Your task to perform on an android device: move a message to another label in the gmail app Image 0: 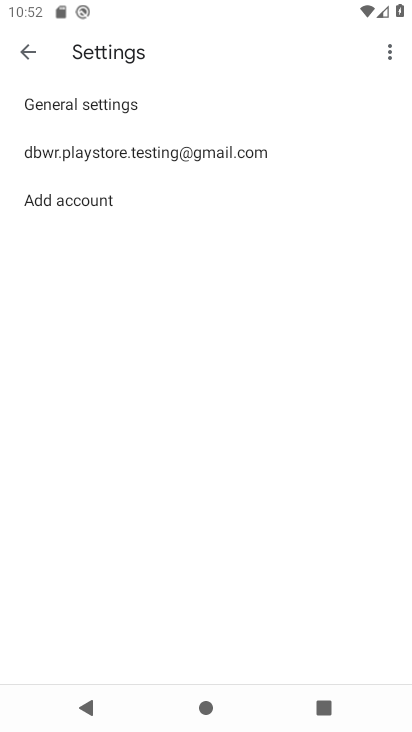
Step 0: press back button
Your task to perform on an android device: move a message to another label in the gmail app Image 1: 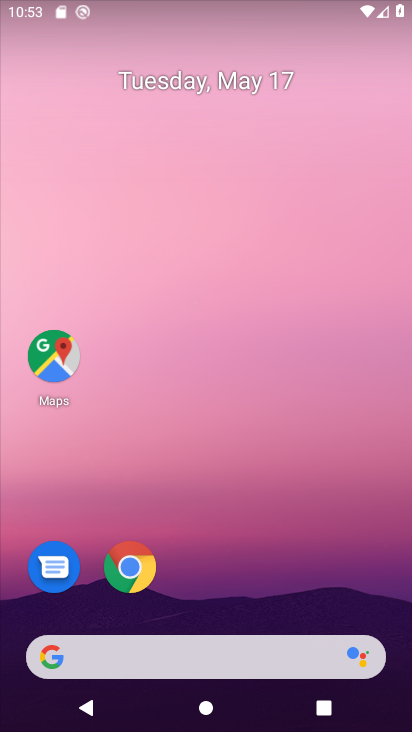
Step 1: drag from (202, 578) to (344, 21)
Your task to perform on an android device: move a message to another label in the gmail app Image 2: 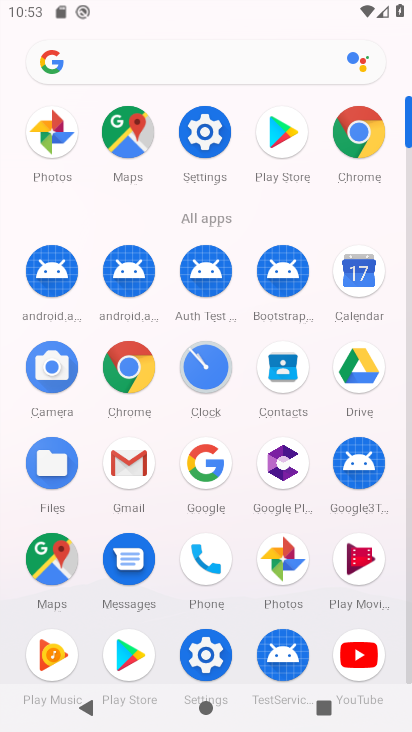
Step 2: click (133, 479)
Your task to perform on an android device: move a message to another label in the gmail app Image 3: 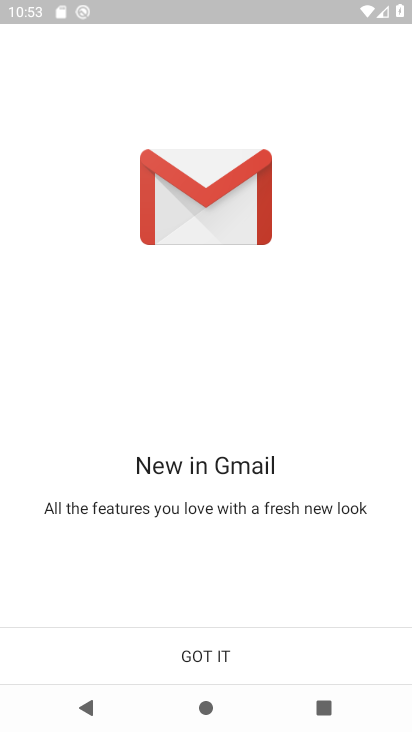
Step 3: click (208, 654)
Your task to perform on an android device: move a message to another label in the gmail app Image 4: 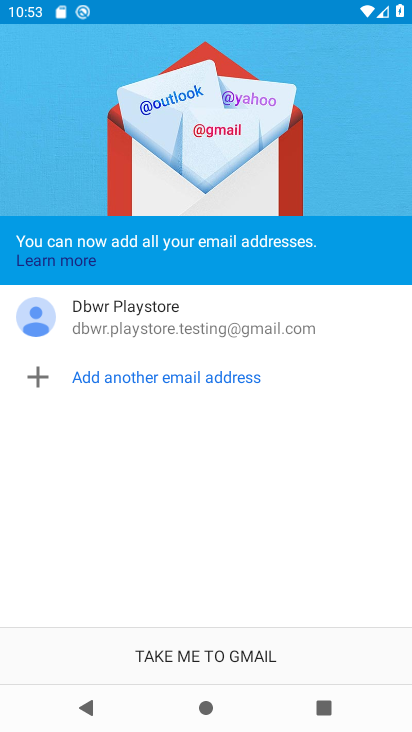
Step 4: click (203, 651)
Your task to perform on an android device: move a message to another label in the gmail app Image 5: 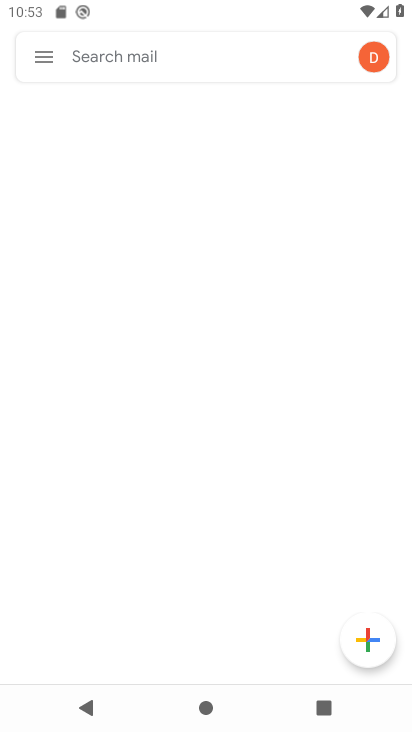
Step 5: click (32, 53)
Your task to perform on an android device: move a message to another label in the gmail app Image 6: 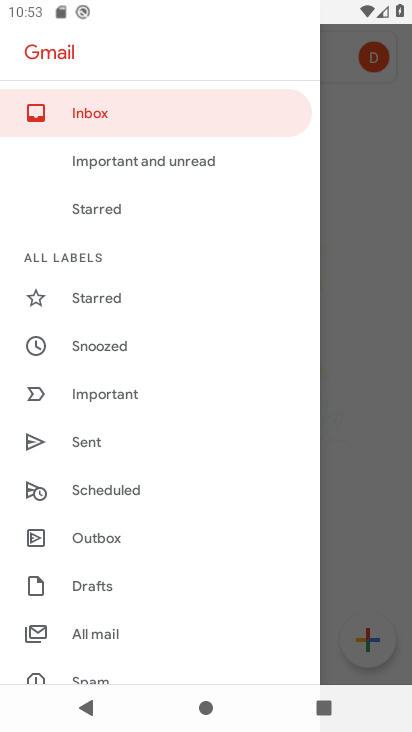
Step 6: click (118, 633)
Your task to perform on an android device: move a message to another label in the gmail app Image 7: 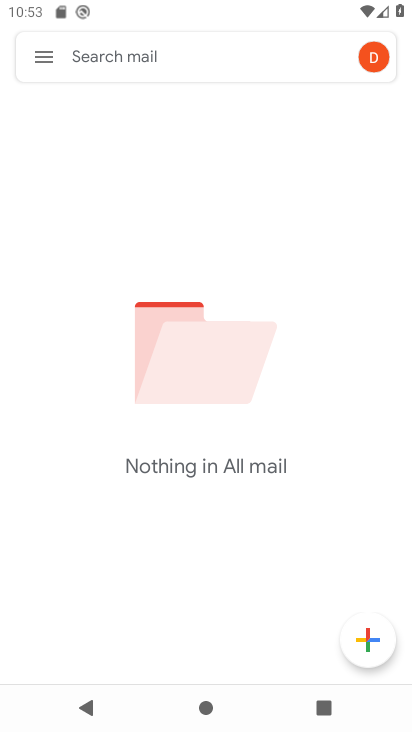
Step 7: task complete